Your task to perform on an android device: Open privacy settings Image 0: 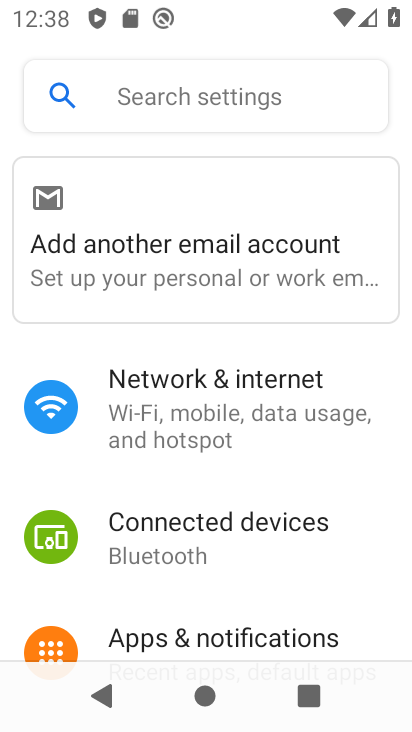
Step 0: press home button
Your task to perform on an android device: Open privacy settings Image 1: 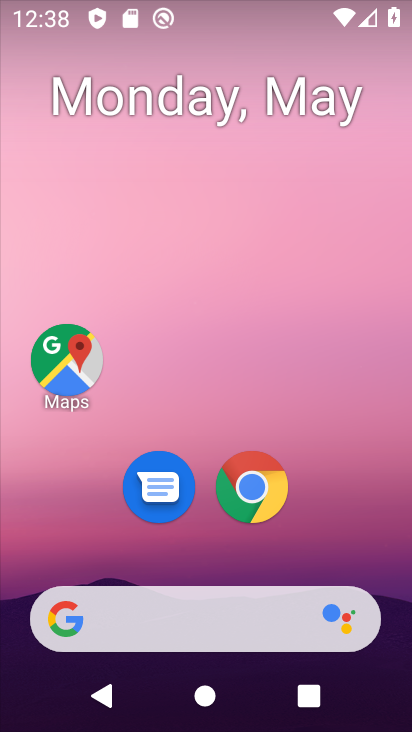
Step 1: click (261, 495)
Your task to perform on an android device: Open privacy settings Image 2: 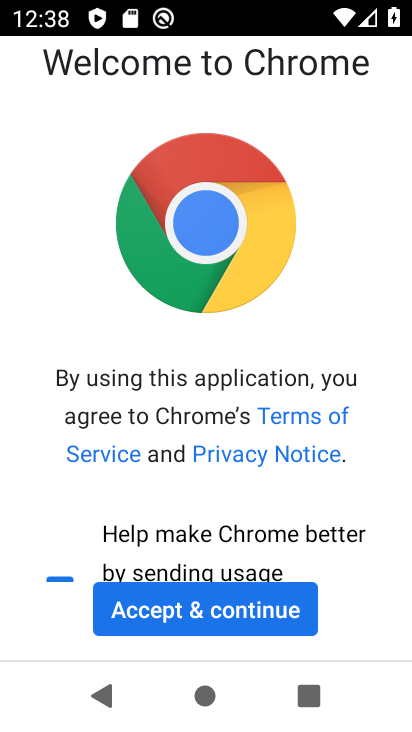
Step 2: click (244, 595)
Your task to perform on an android device: Open privacy settings Image 3: 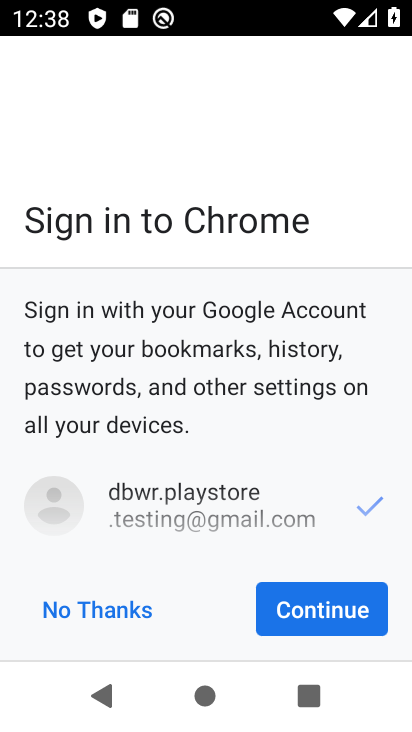
Step 3: click (338, 614)
Your task to perform on an android device: Open privacy settings Image 4: 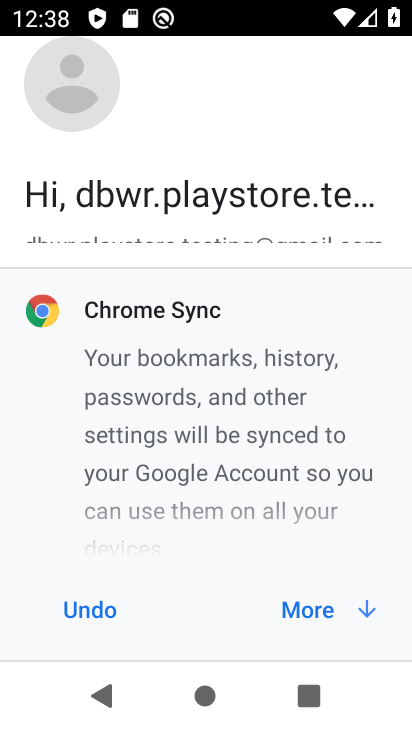
Step 4: click (338, 614)
Your task to perform on an android device: Open privacy settings Image 5: 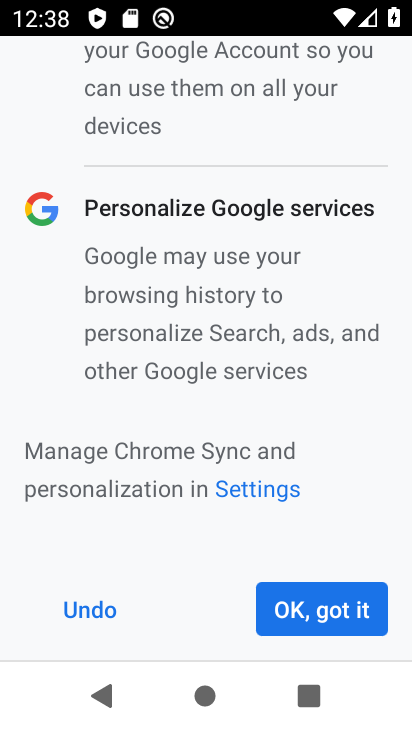
Step 5: click (338, 614)
Your task to perform on an android device: Open privacy settings Image 6: 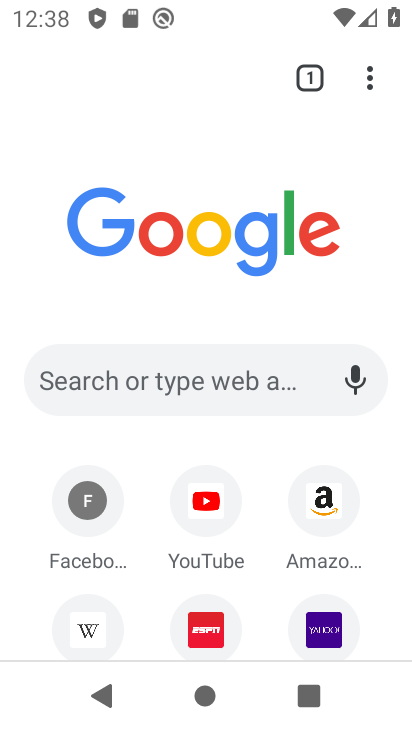
Step 6: drag from (372, 99) to (198, 555)
Your task to perform on an android device: Open privacy settings Image 7: 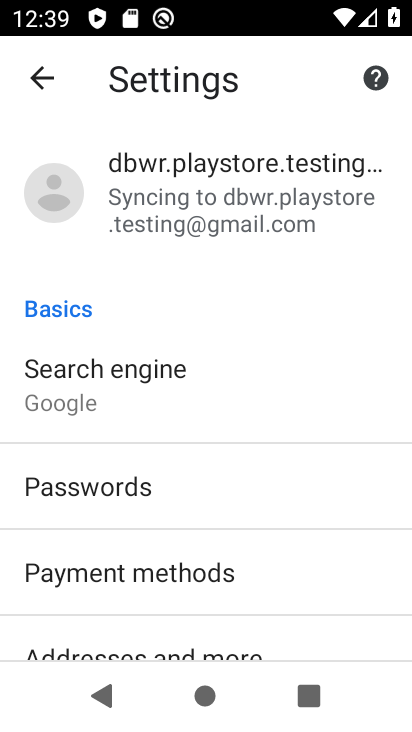
Step 7: drag from (199, 599) to (286, 364)
Your task to perform on an android device: Open privacy settings Image 8: 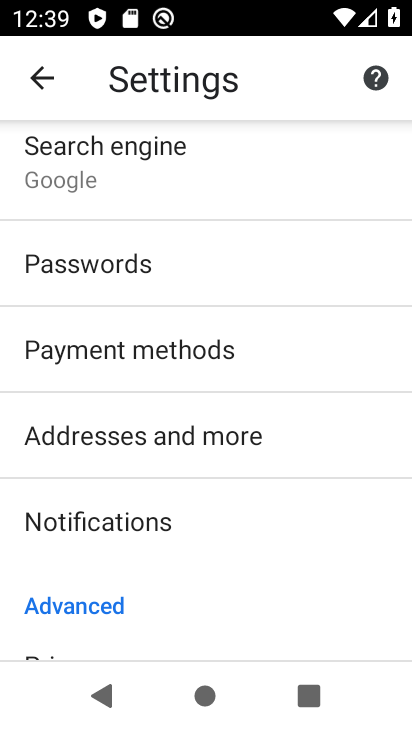
Step 8: drag from (252, 607) to (312, 410)
Your task to perform on an android device: Open privacy settings Image 9: 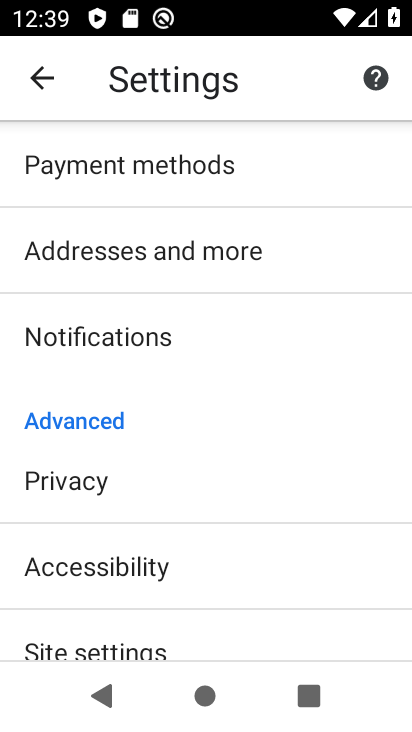
Step 9: click (227, 480)
Your task to perform on an android device: Open privacy settings Image 10: 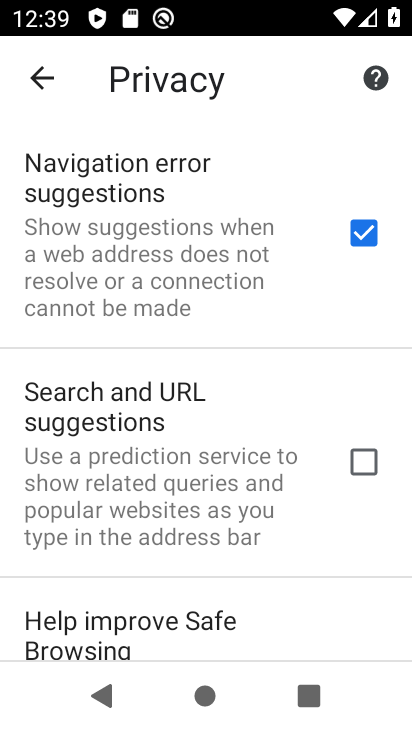
Step 10: task complete